Your task to perform on an android device: Search for the new lego star wars 2021 on Target Image 0: 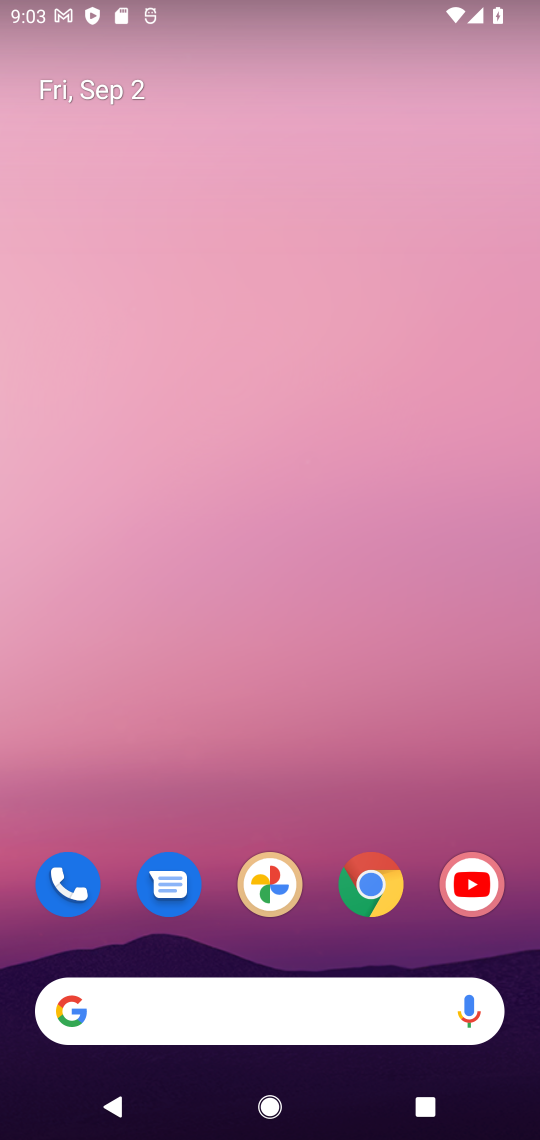
Step 0: click (363, 887)
Your task to perform on an android device: Search for the new lego star wars 2021 on Target Image 1: 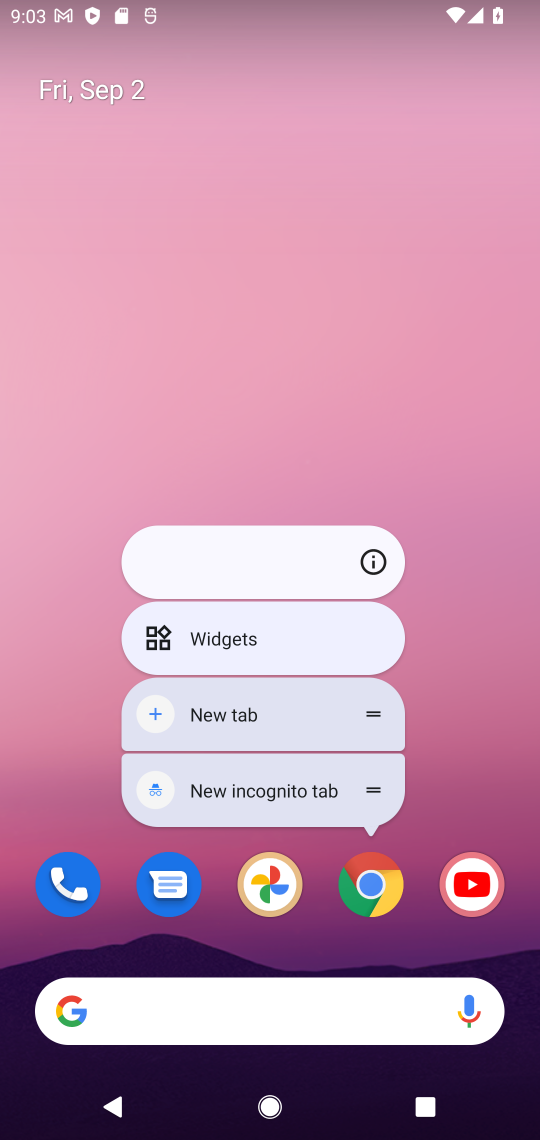
Step 1: click (372, 897)
Your task to perform on an android device: Search for the new lego star wars 2021 on Target Image 2: 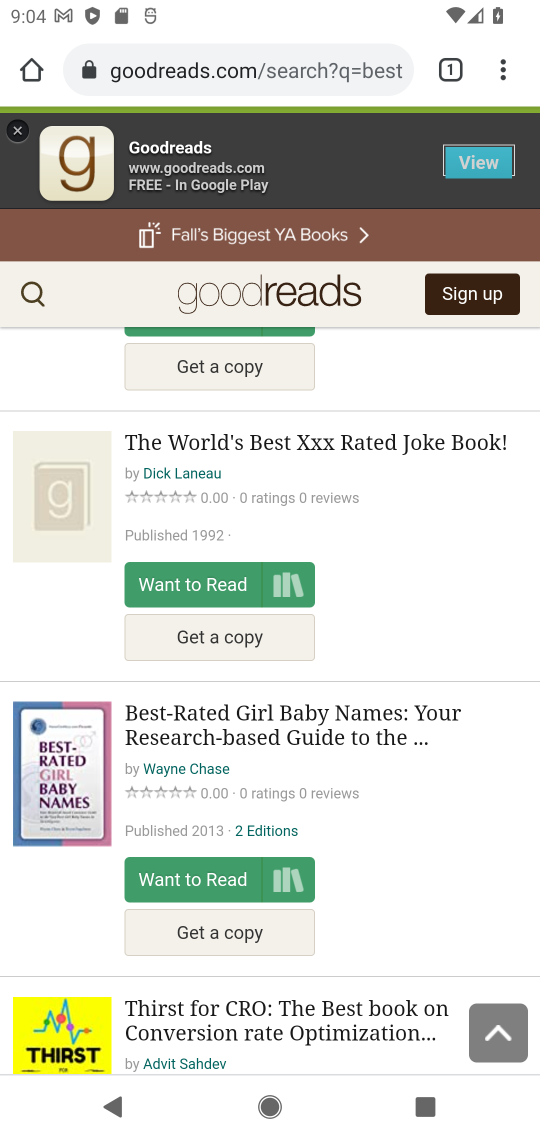
Step 2: click (269, 84)
Your task to perform on an android device: Search for the new lego star wars 2021 on Target Image 3: 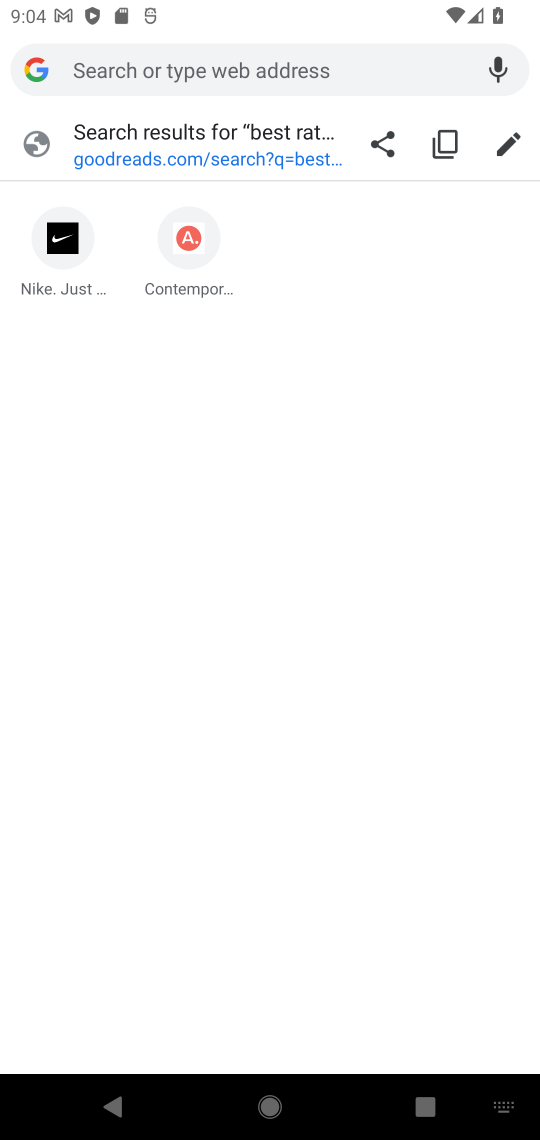
Step 3: type "Target"
Your task to perform on an android device: Search for the new lego star wars 2021 on Target Image 4: 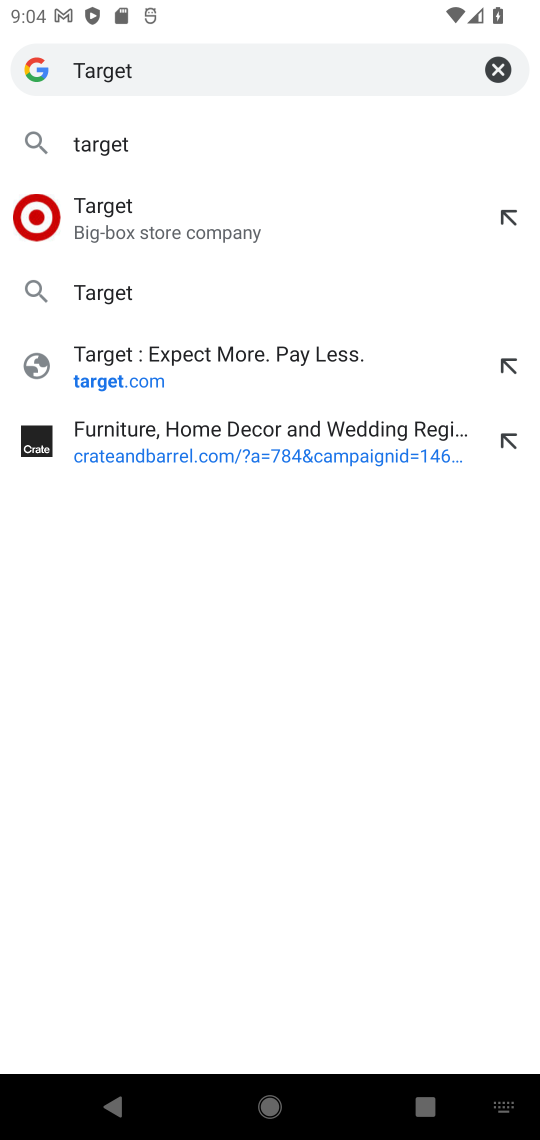
Step 4: click (92, 223)
Your task to perform on an android device: Search for the new lego star wars 2021 on Target Image 5: 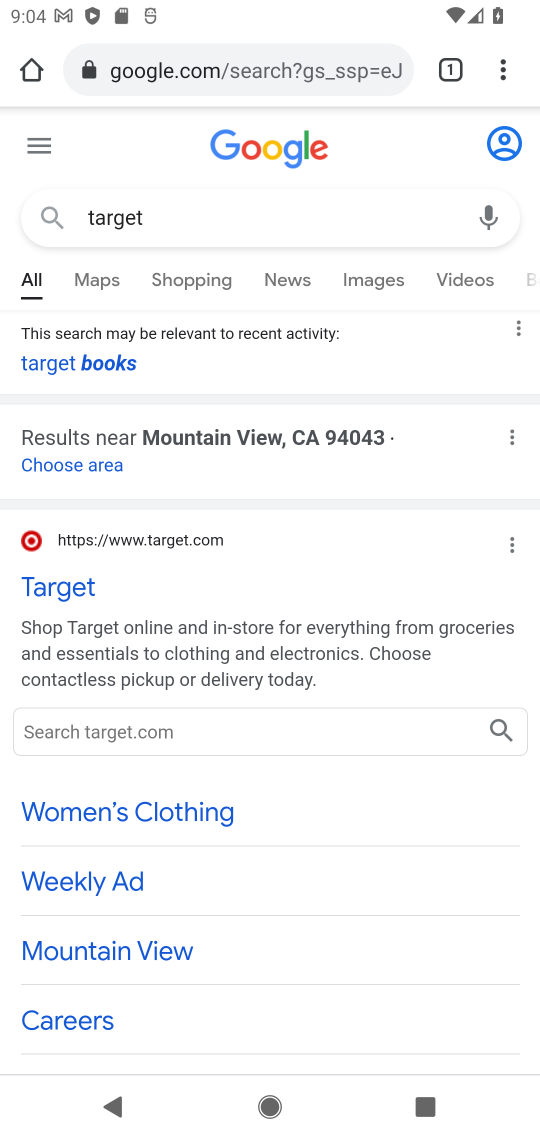
Step 5: click (65, 589)
Your task to perform on an android device: Search for the new lego star wars 2021 on Target Image 6: 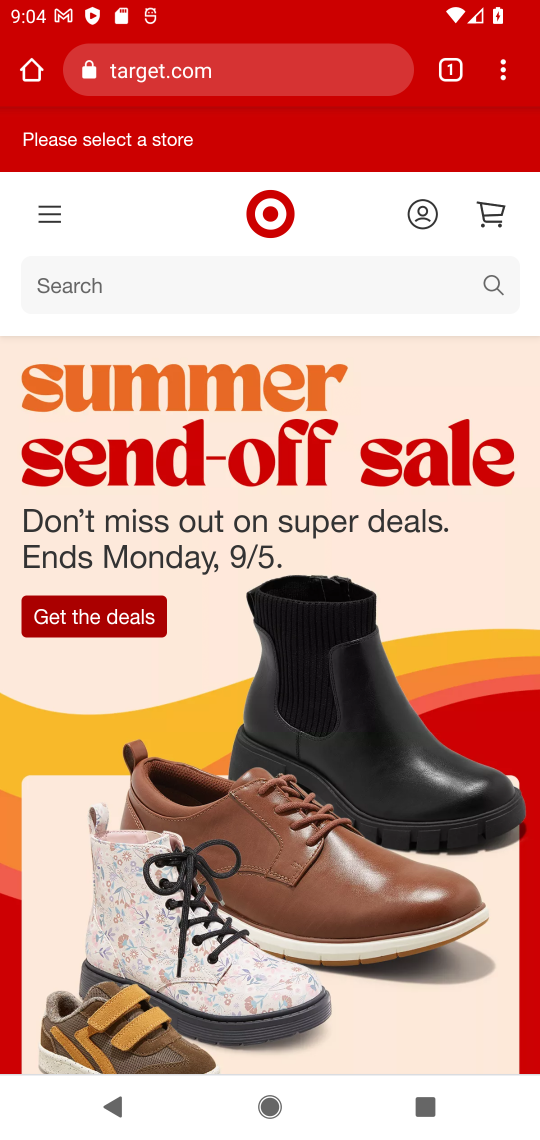
Step 6: click (490, 286)
Your task to perform on an android device: Search for the new lego star wars 2021 on Target Image 7: 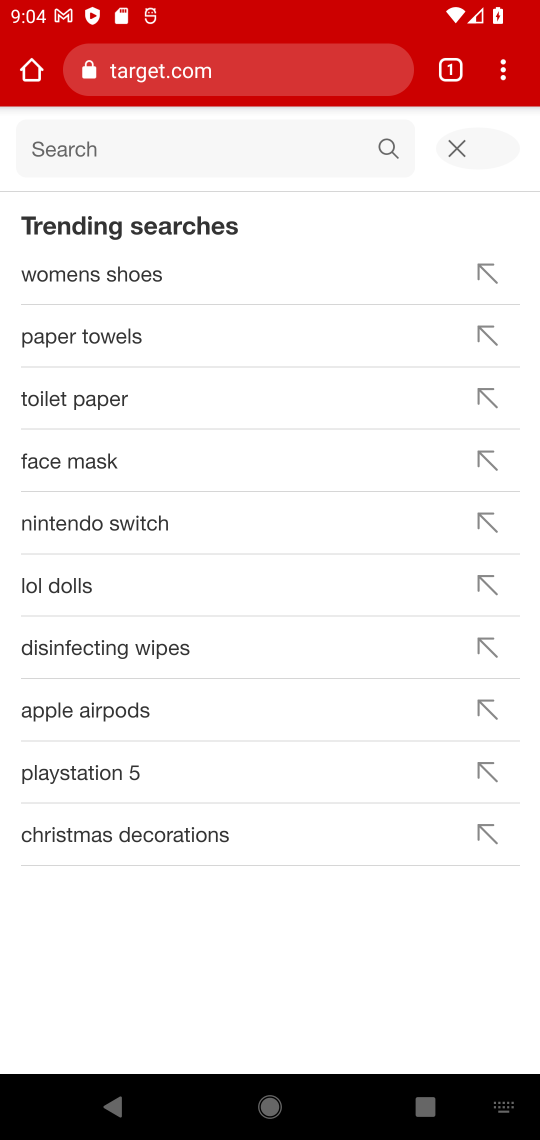
Step 7: type "new lego star wars 2021 "
Your task to perform on an android device: Search for the new lego star wars 2021 on Target Image 8: 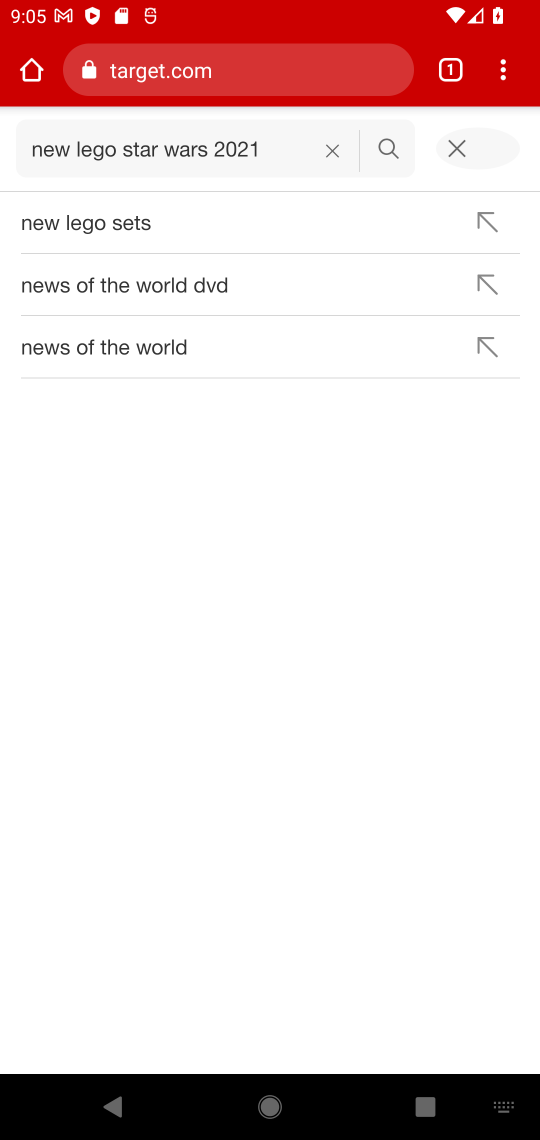
Step 8: click (395, 153)
Your task to perform on an android device: Search for the new lego star wars 2021 on Target Image 9: 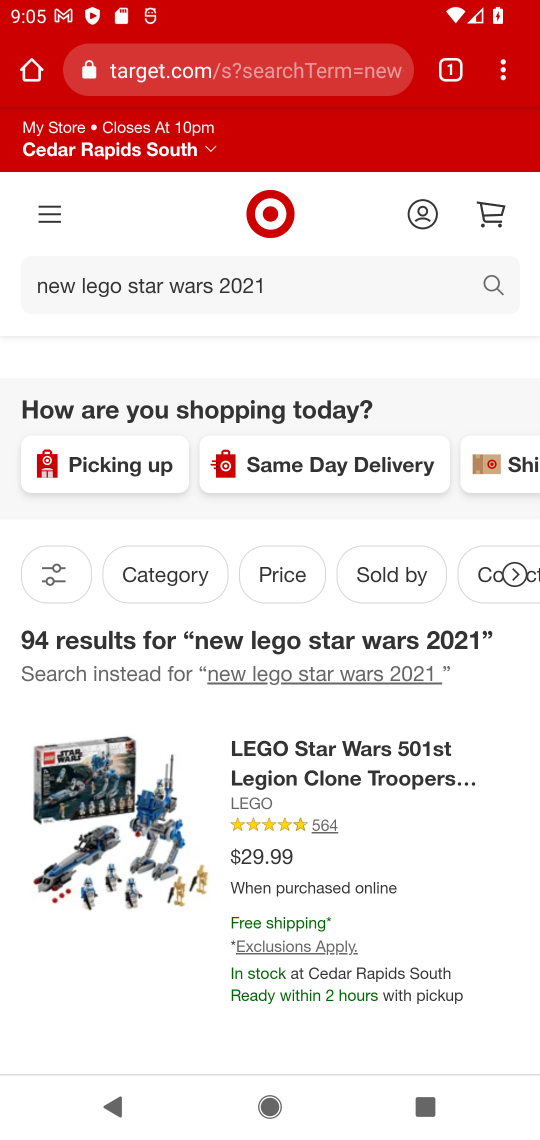
Step 9: task complete